Your task to perform on an android device: turn on bluetooth scan Image 0: 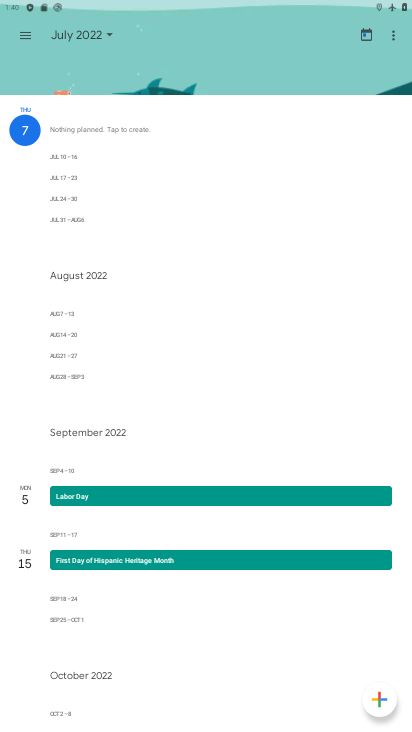
Step 0: press home button
Your task to perform on an android device: turn on bluetooth scan Image 1: 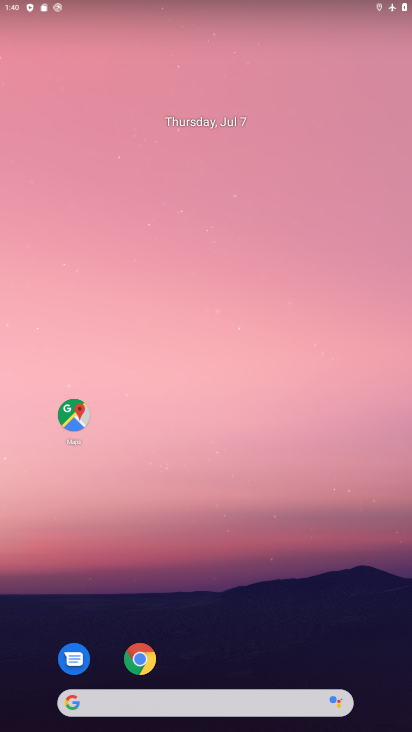
Step 1: drag from (256, 588) to (264, 167)
Your task to perform on an android device: turn on bluetooth scan Image 2: 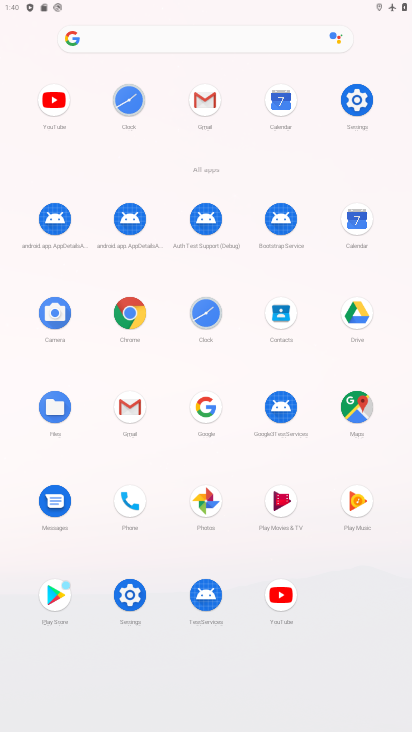
Step 2: click (362, 111)
Your task to perform on an android device: turn on bluetooth scan Image 3: 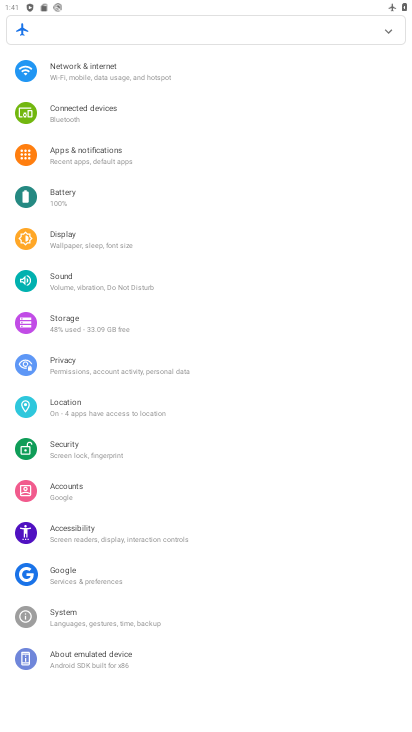
Step 3: click (128, 116)
Your task to perform on an android device: turn on bluetooth scan Image 4: 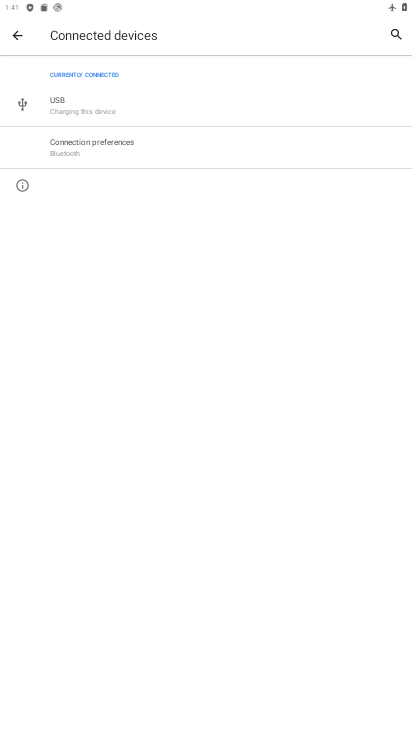
Step 4: click (128, 145)
Your task to perform on an android device: turn on bluetooth scan Image 5: 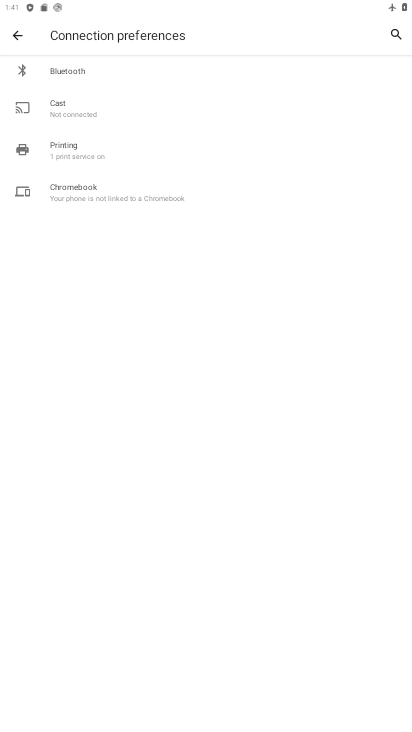
Step 5: click (102, 66)
Your task to perform on an android device: turn on bluetooth scan Image 6: 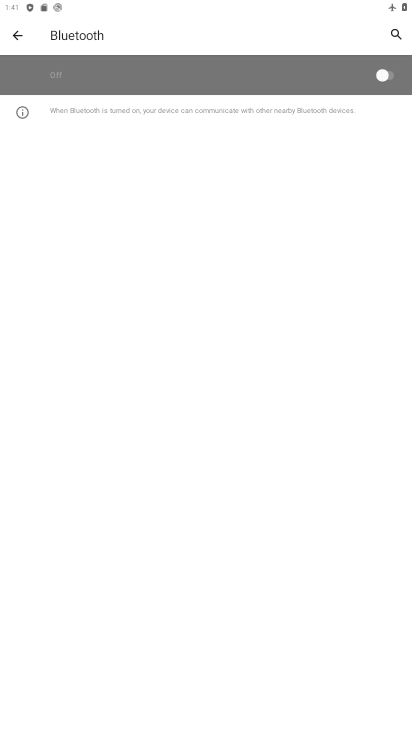
Step 6: click (132, 80)
Your task to perform on an android device: turn on bluetooth scan Image 7: 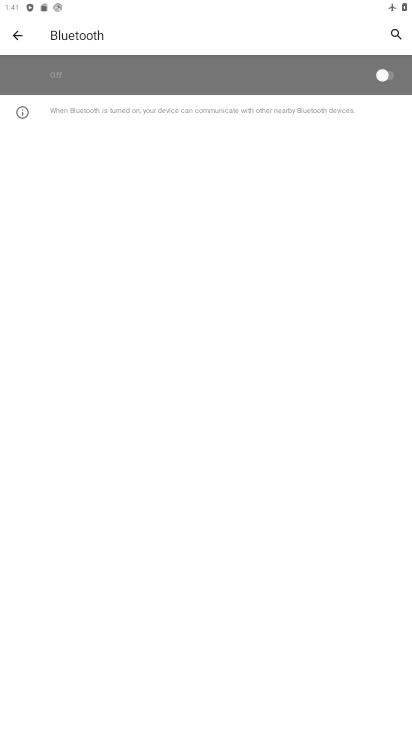
Step 7: click (132, 80)
Your task to perform on an android device: turn on bluetooth scan Image 8: 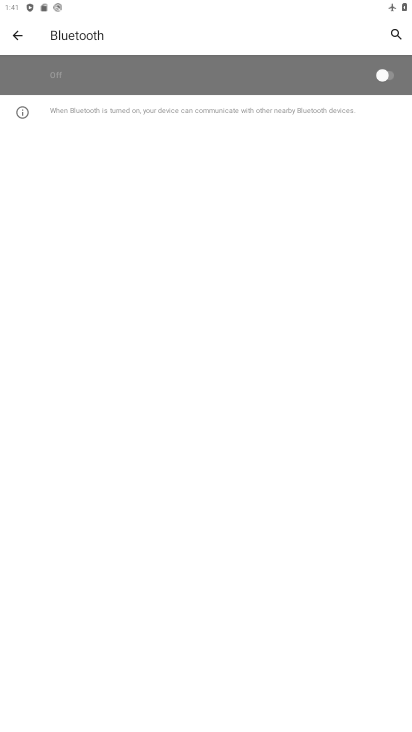
Step 8: click (391, 81)
Your task to perform on an android device: turn on bluetooth scan Image 9: 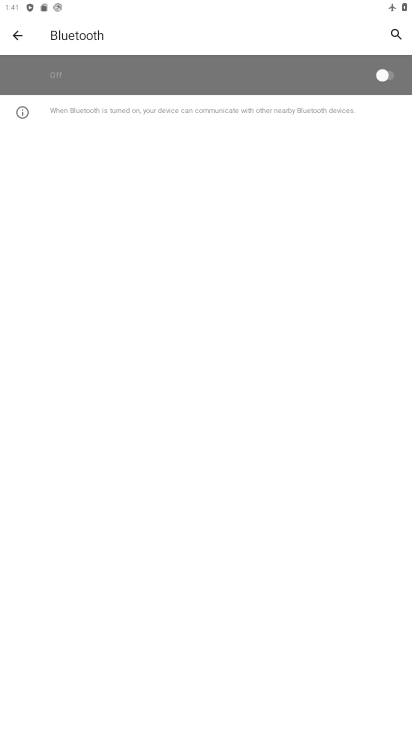
Step 9: task complete